Your task to perform on an android device: Check the settings for the YouTube app Image 0: 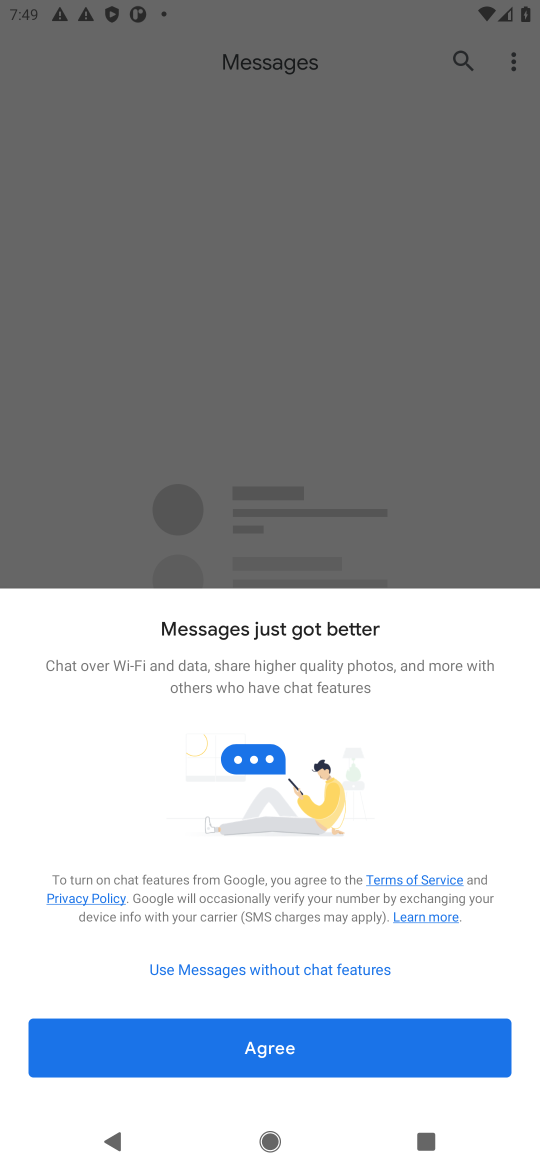
Step 0: press home button
Your task to perform on an android device: Check the settings for the YouTube app Image 1: 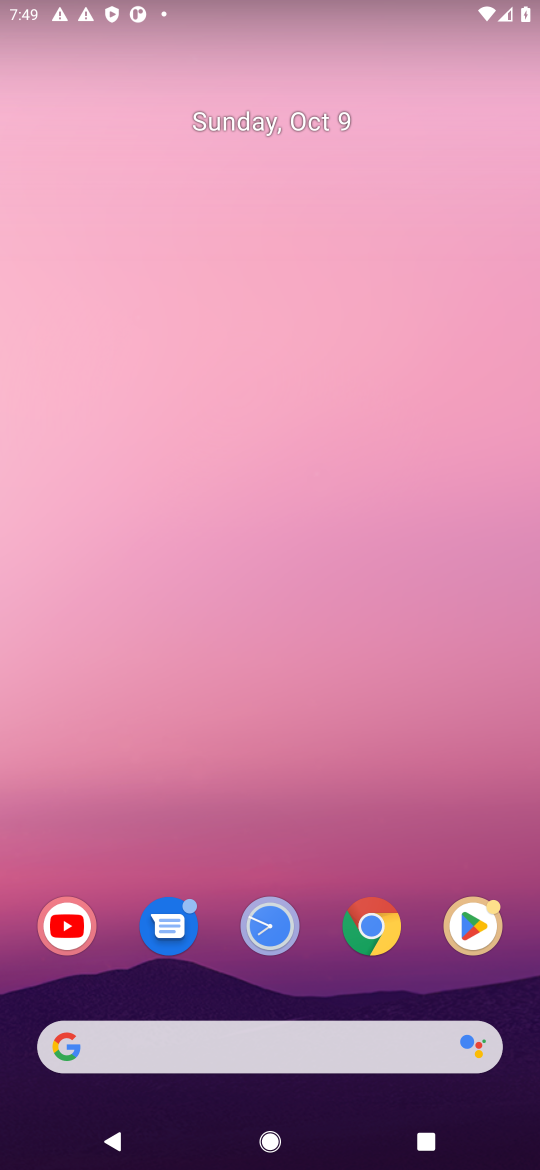
Step 1: drag from (315, 935) to (314, 73)
Your task to perform on an android device: Check the settings for the YouTube app Image 2: 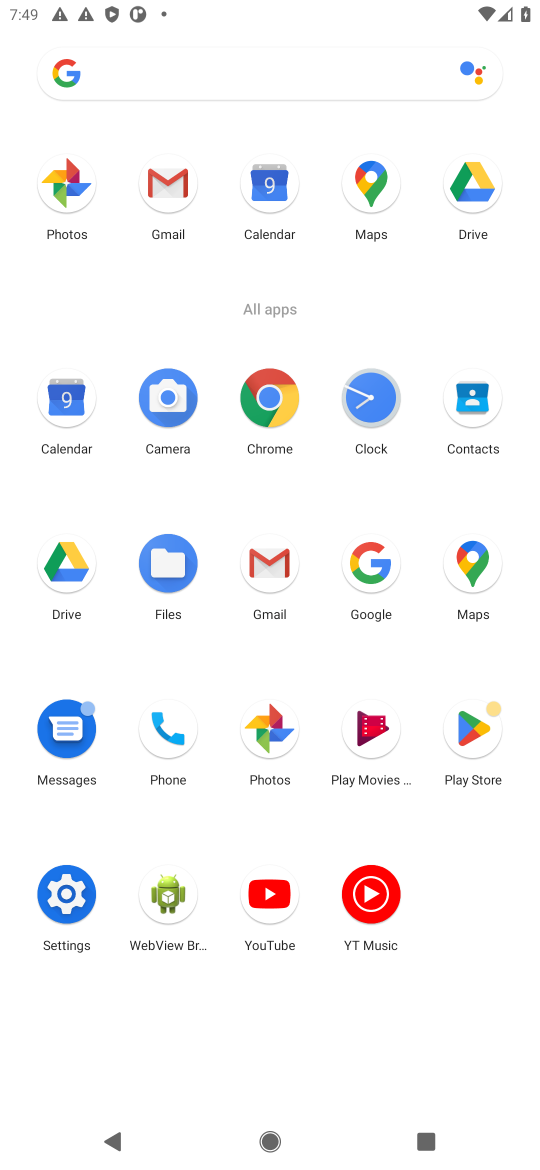
Step 2: click (272, 890)
Your task to perform on an android device: Check the settings for the YouTube app Image 3: 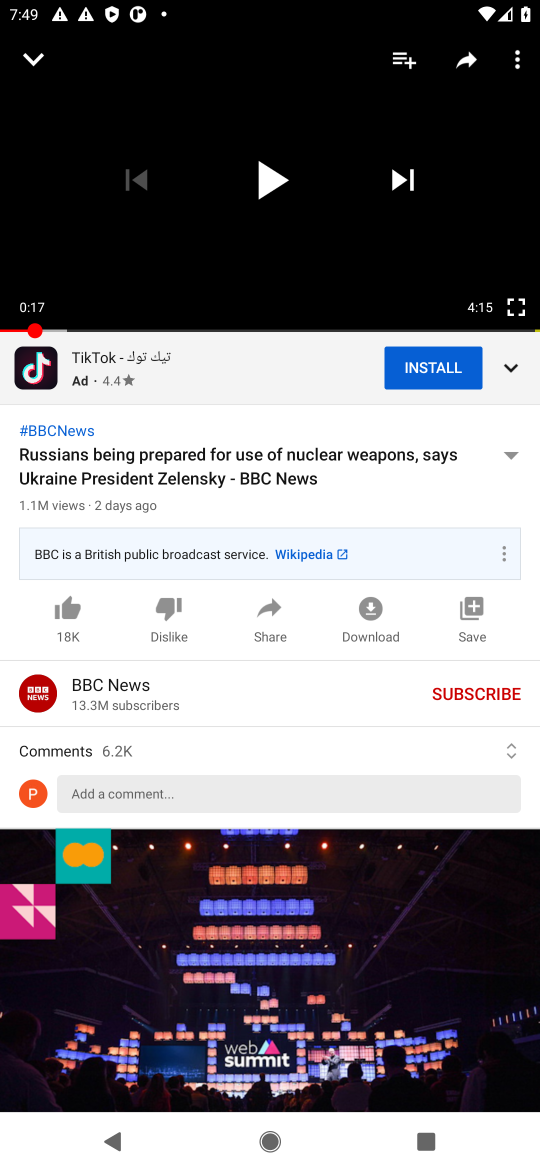
Step 3: drag from (253, 111) to (335, 784)
Your task to perform on an android device: Check the settings for the YouTube app Image 4: 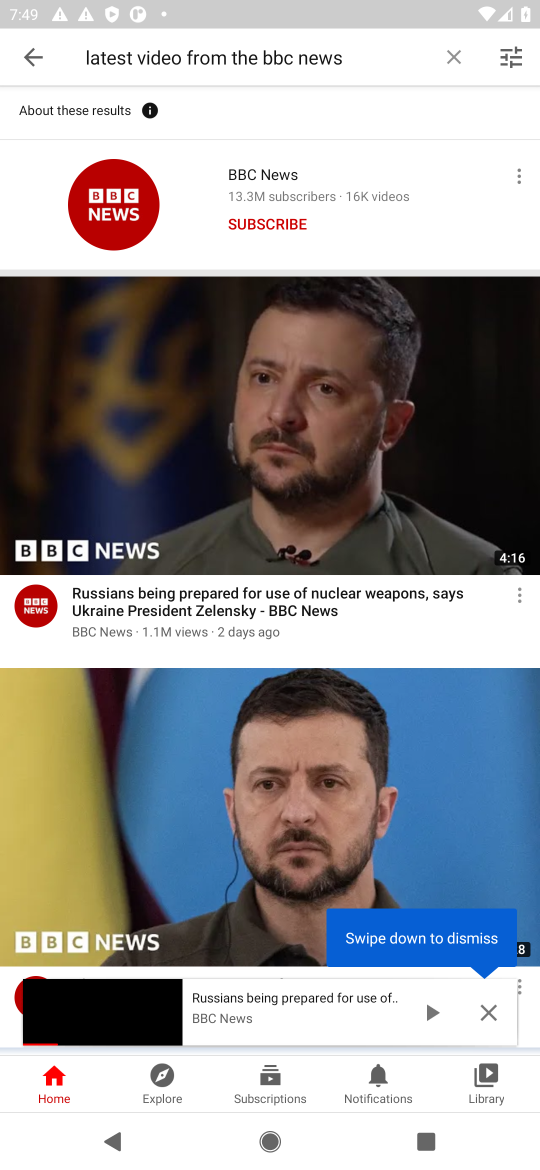
Step 4: click (486, 1082)
Your task to perform on an android device: Check the settings for the YouTube app Image 5: 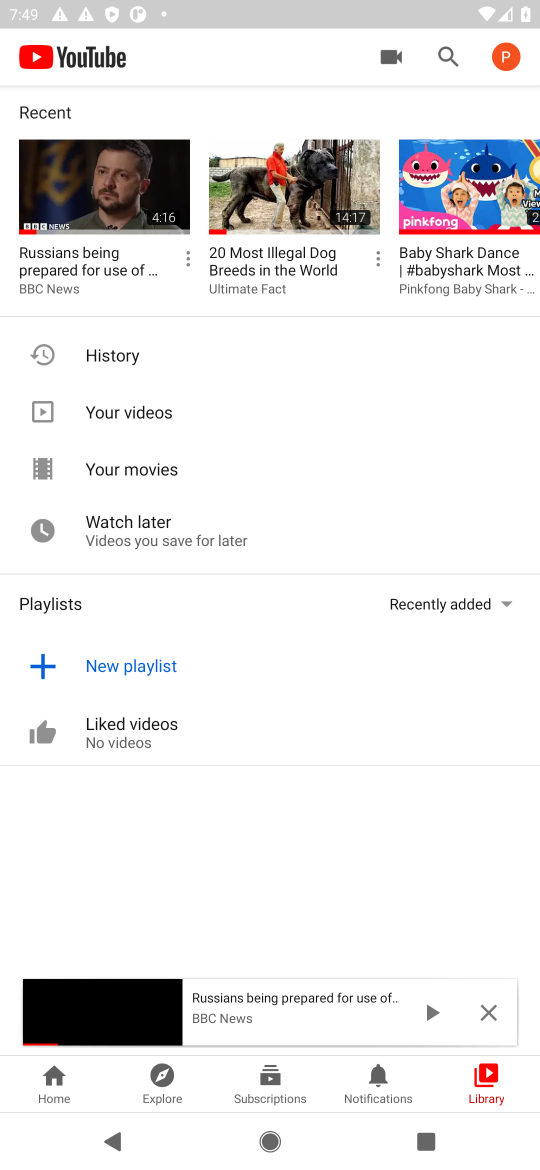
Step 5: click (510, 54)
Your task to perform on an android device: Check the settings for the YouTube app Image 6: 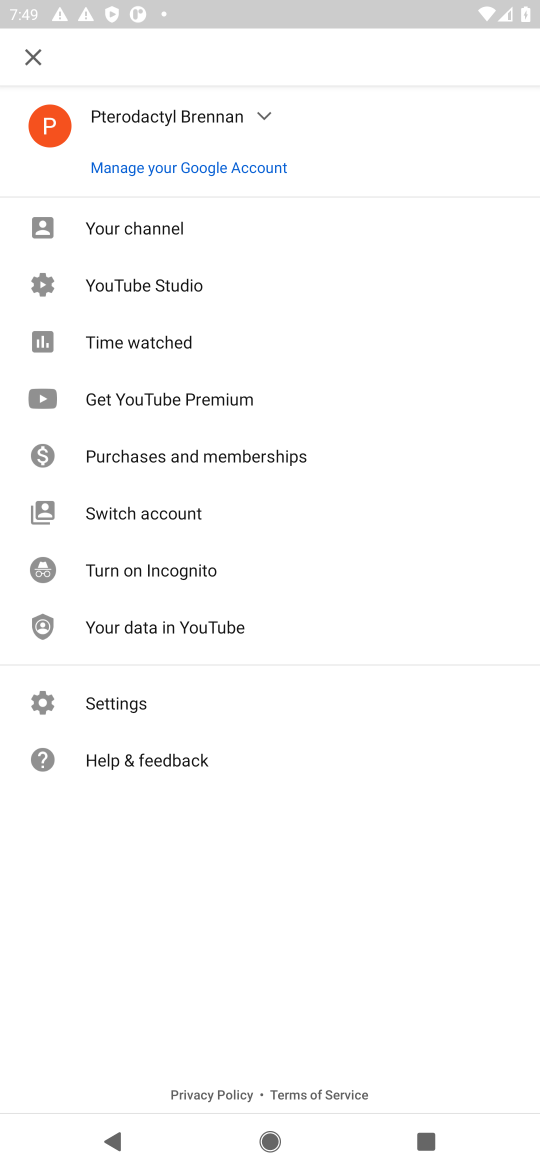
Step 6: click (107, 702)
Your task to perform on an android device: Check the settings for the YouTube app Image 7: 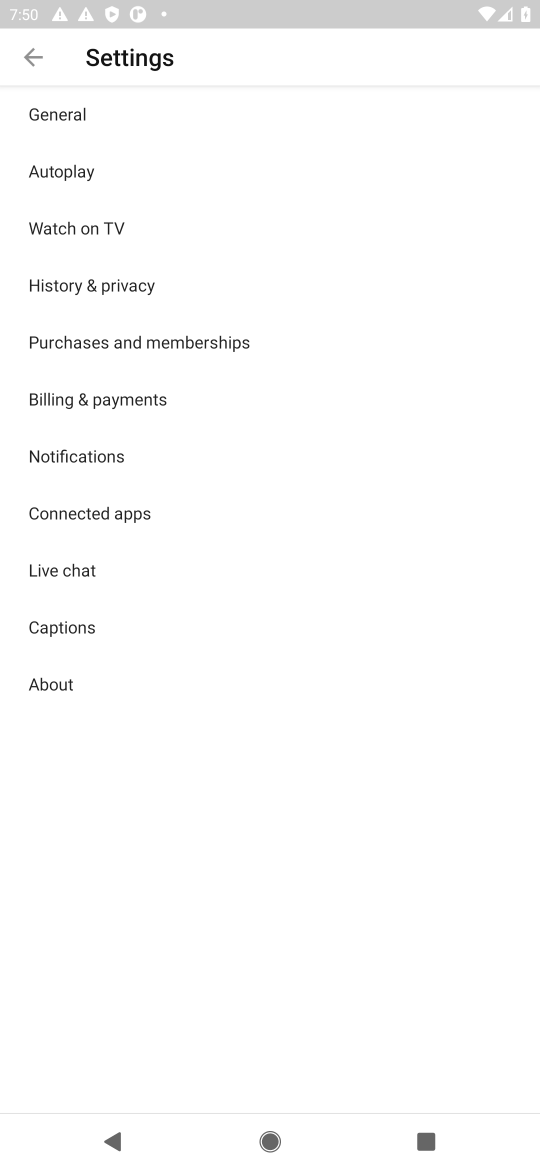
Step 7: task complete